Your task to perform on an android device: Open location settings Image 0: 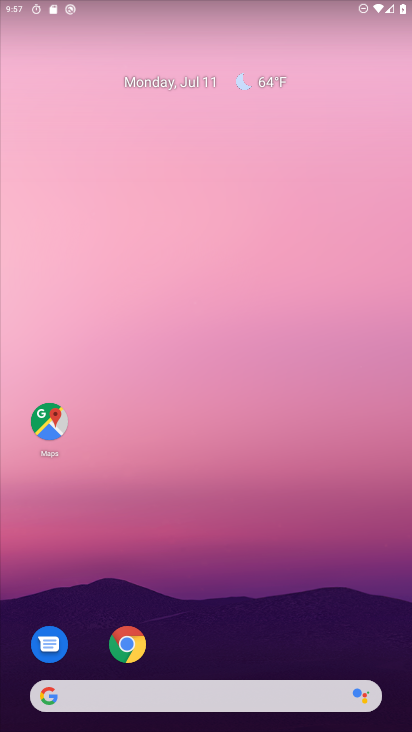
Step 0: drag from (259, 494) to (235, 198)
Your task to perform on an android device: Open location settings Image 1: 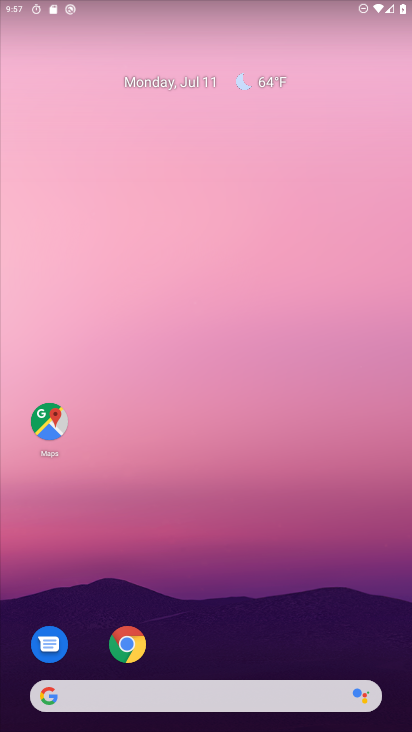
Step 1: drag from (295, 497) to (264, 179)
Your task to perform on an android device: Open location settings Image 2: 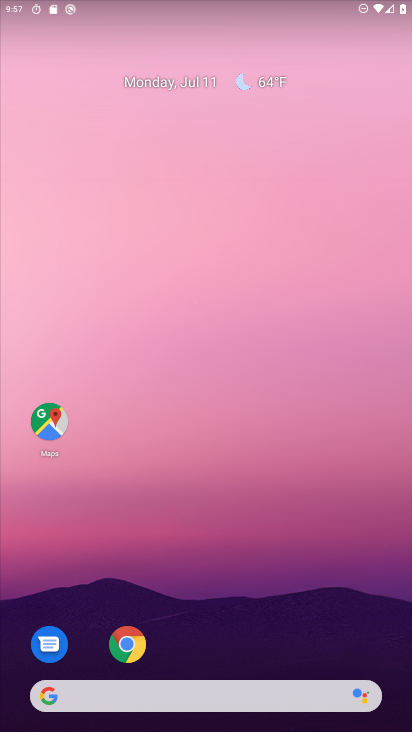
Step 2: drag from (307, 572) to (279, 144)
Your task to perform on an android device: Open location settings Image 3: 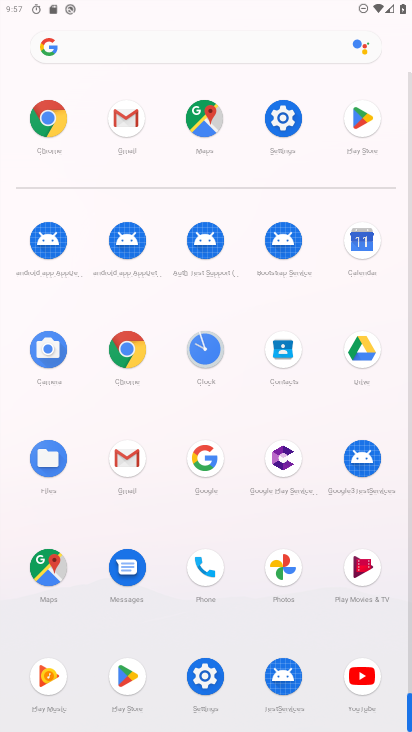
Step 3: click (287, 121)
Your task to perform on an android device: Open location settings Image 4: 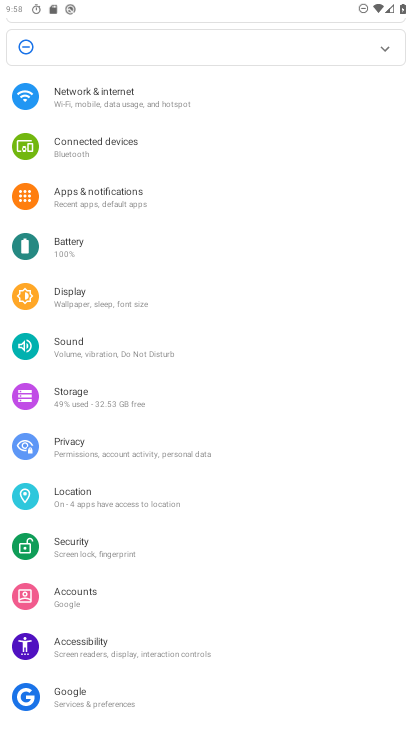
Step 4: click (105, 495)
Your task to perform on an android device: Open location settings Image 5: 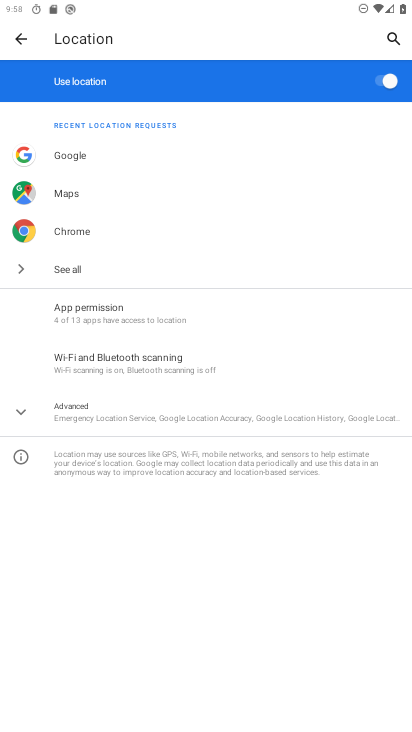
Step 5: task complete